Your task to perform on an android device: Open the settings Image 0: 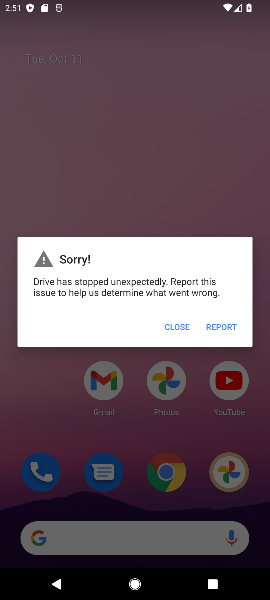
Step 0: press back button
Your task to perform on an android device: Open the settings Image 1: 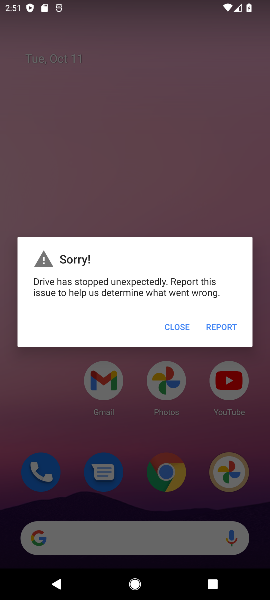
Step 1: press home button
Your task to perform on an android device: Open the settings Image 2: 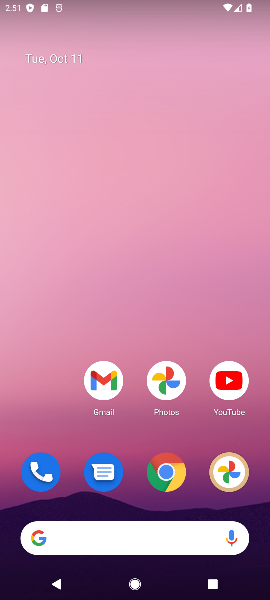
Step 2: drag from (121, 499) to (9, 13)
Your task to perform on an android device: Open the settings Image 3: 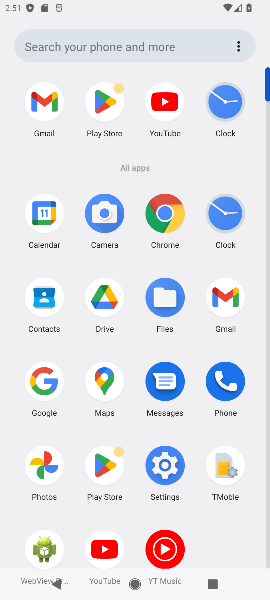
Step 3: click (174, 478)
Your task to perform on an android device: Open the settings Image 4: 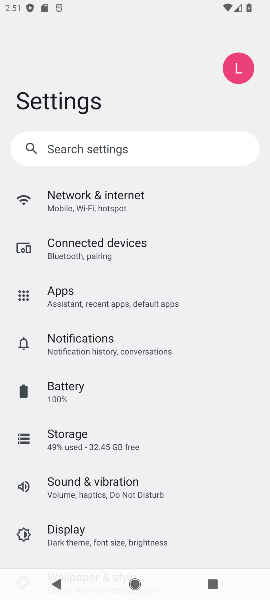
Step 4: task complete